Your task to perform on an android device: turn off javascript in the chrome app Image 0: 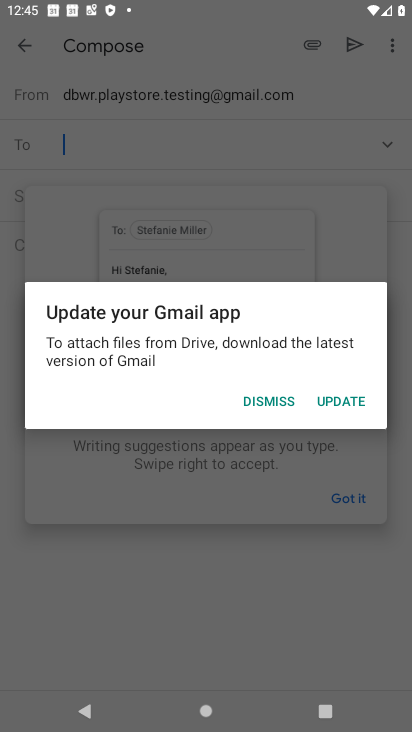
Step 0: press home button
Your task to perform on an android device: turn off javascript in the chrome app Image 1: 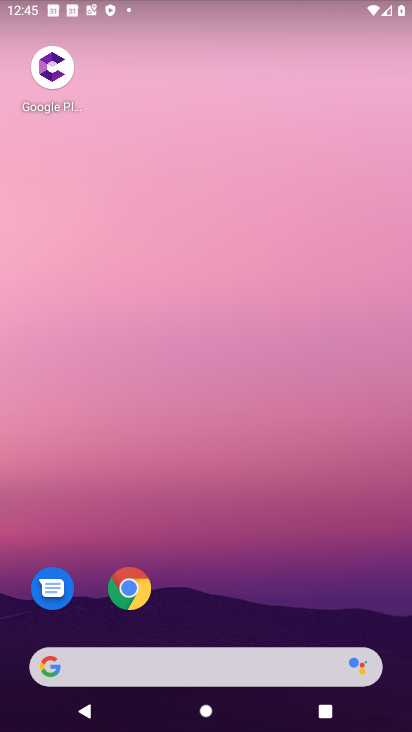
Step 1: click (133, 610)
Your task to perform on an android device: turn off javascript in the chrome app Image 2: 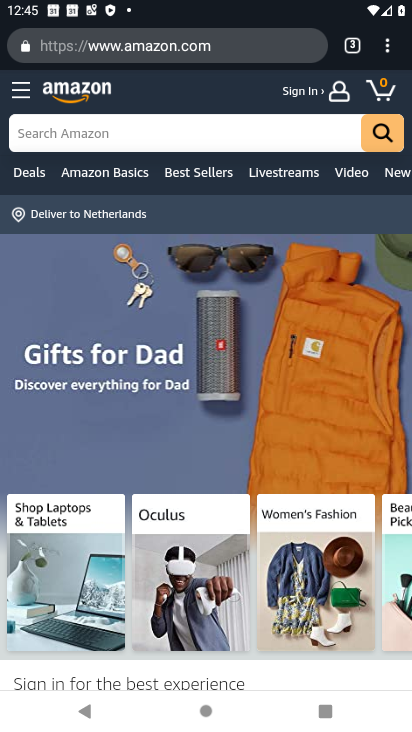
Step 2: click (383, 35)
Your task to perform on an android device: turn off javascript in the chrome app Image 3: 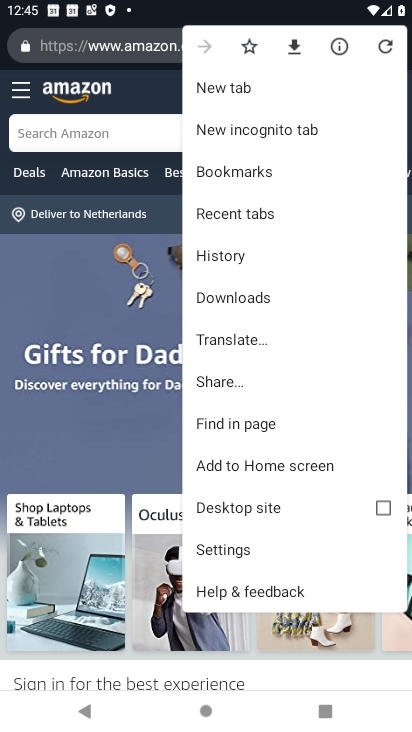
Step 3: click (246, 551)
Your task to perform on an android device: turn off javascript in the chrome app Image 4: 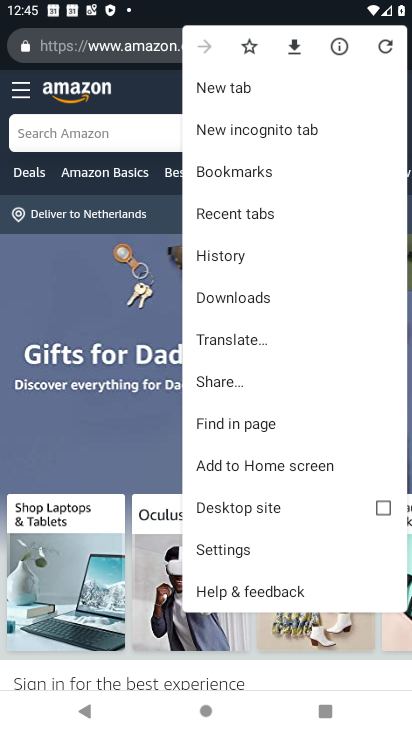
Step 4: click (236, 559)
Your task to perform on an android device: turn off javascript in the chrome app Image 5: 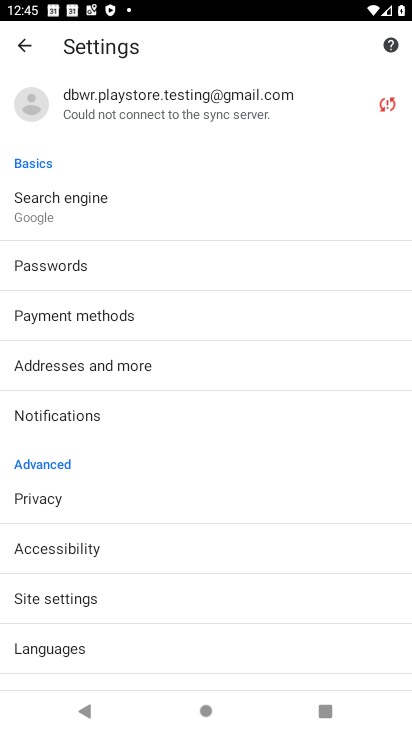
Step 5: click (75, 608)
Your task to perform on an android device: turn off javascript in the chrome app Image 6: 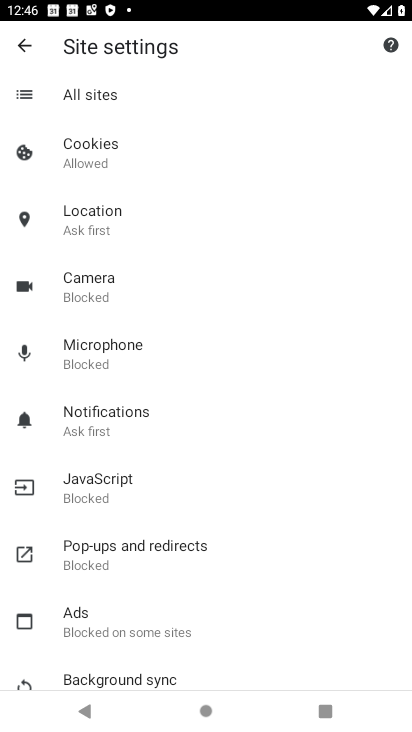
Step 6: click (126, 497)
Your task to perform on an android device: turn off javascript in the chrome app Image 7: 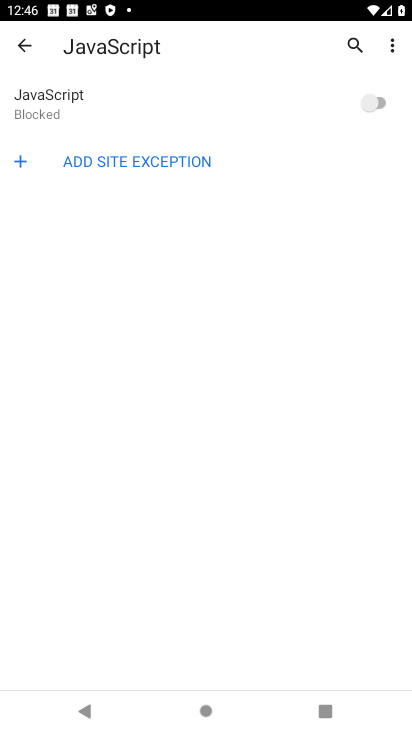
Step 7: click (377, 105)
Your task to perform on an android device: turn off javascript in the chrome app Image 8: 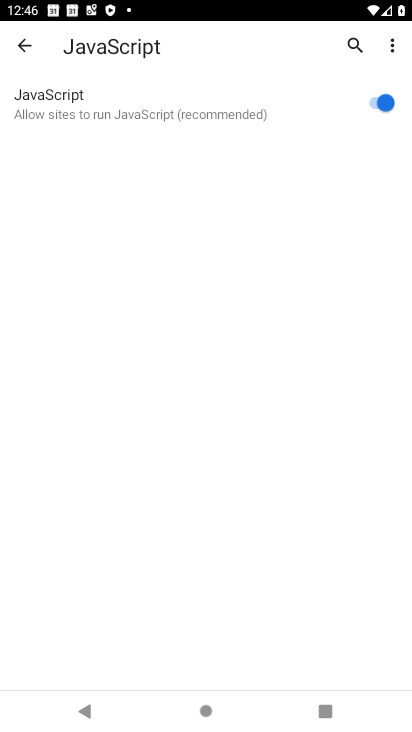
Step 8: task complete